Your task to perform on an android device: toggle notification dots Image 0: 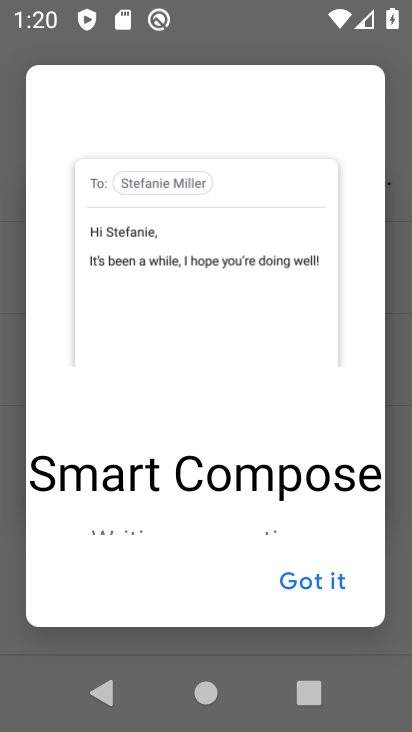
Step 0: press home button
Your task to perform on an android device: toggle notification dots Image 1: 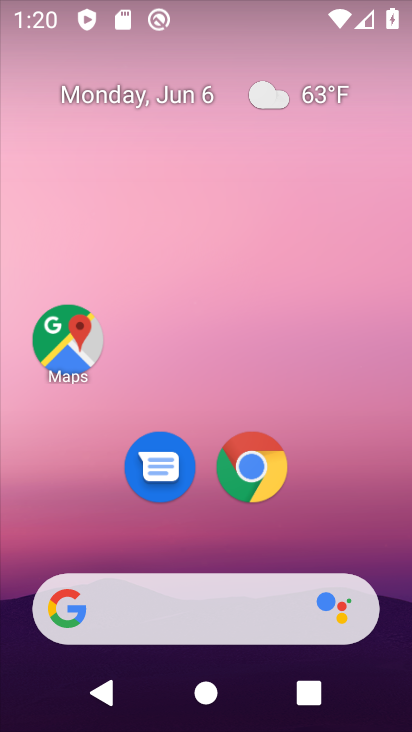
Step 1: drag from (394, 597) to (252, 73)
Your task to perform on an android device: toggle notification dots Image 2: 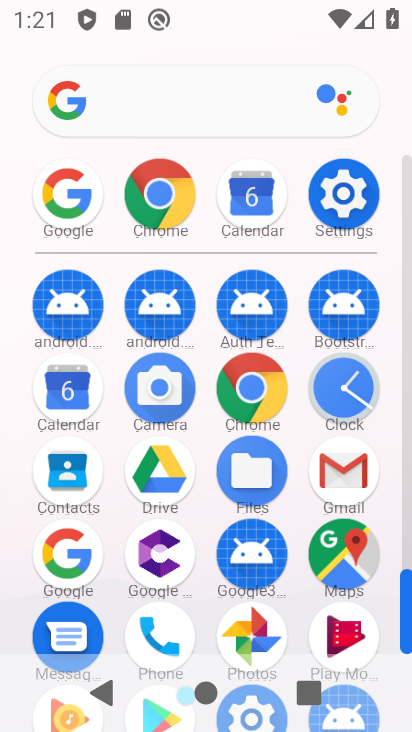
Step 2: click (334, 197)
Your task to perform on an android device: toggle notification dots Image 3: 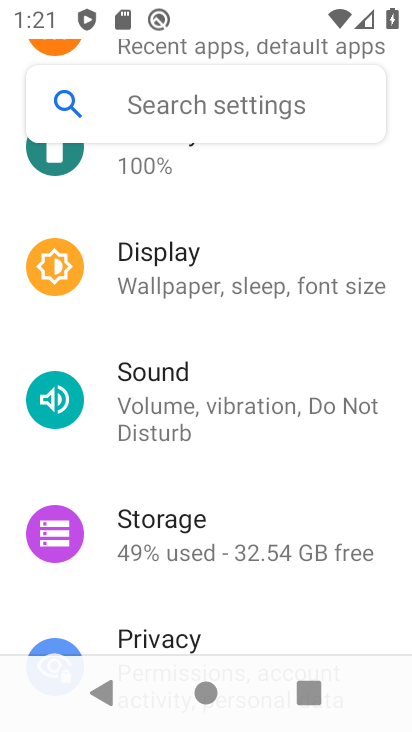
Step 3: drag from (271, 239) to (269, 640)
Your task to perform on an android device: toggle notification dots Image 4: 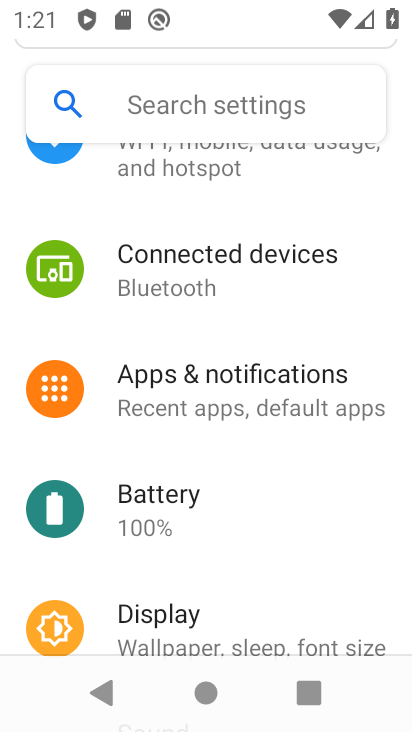
Step 4: click (267, 391)
Your task to perform on an android device: toggle notification dots Image 5: 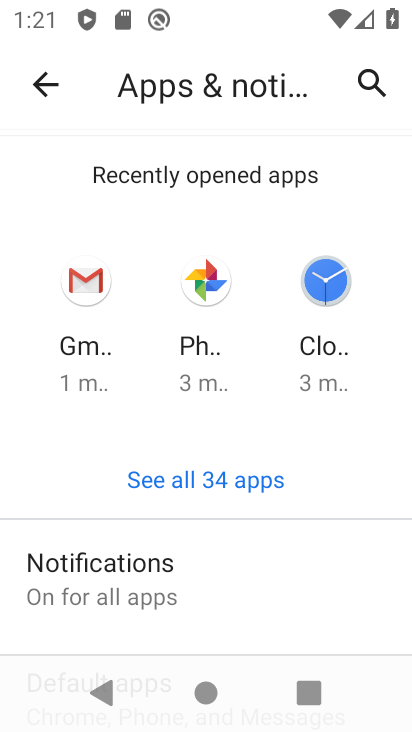
Step 5: click (189, 598)
Your task to perform on an android device: toggle notification dots Image 6: 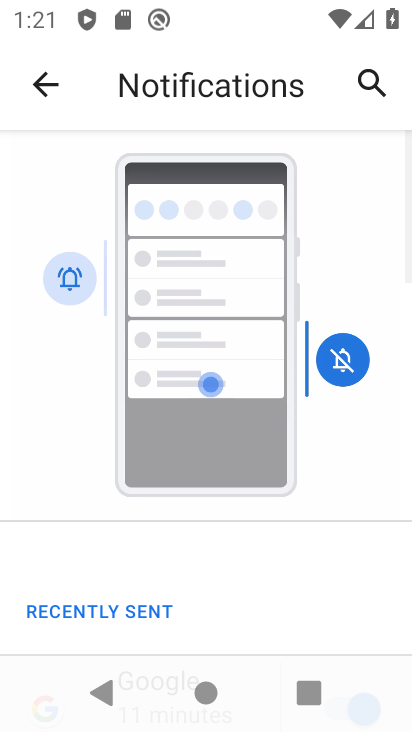
Step 6: drag from (189, 593) to (218, 8)
Your task to perform on an android device: toggle notification dots Image 7: 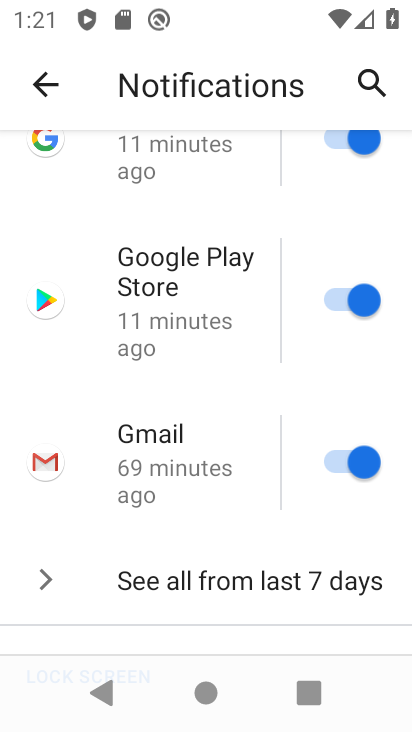
Step 7: drag from (165, 530) to (257, 6)
Your task to perform on an android device: toggle notification dots Image 8: 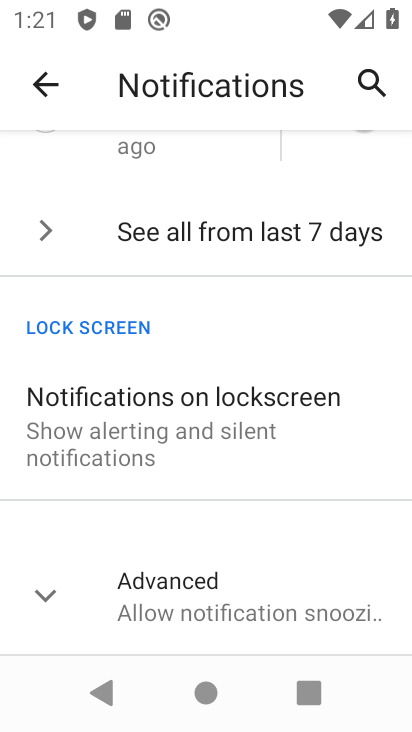
Step 8: click (155, 591)
Your task to perform on an android device: toggle notification dots Image 9: 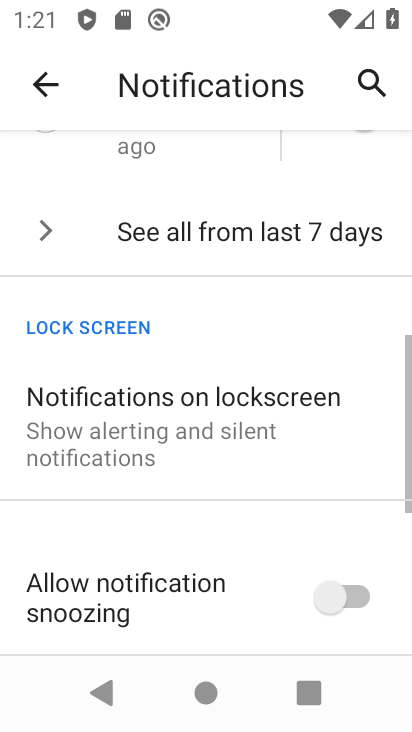
Step 9: drag from (167, 546) to (173, 509)
Your task to perform on an android device: toggle notification dots Image 10: 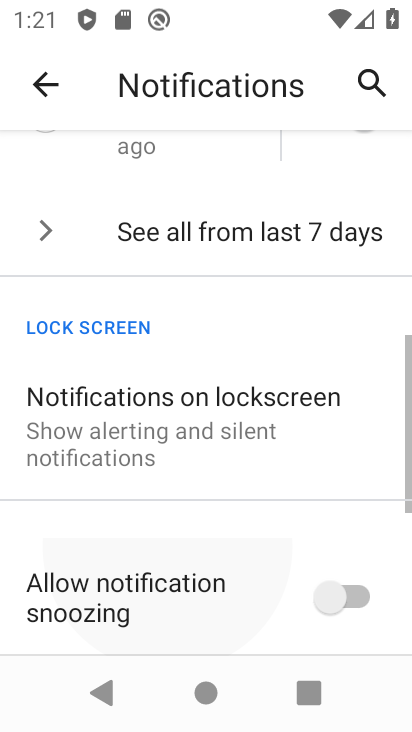
Step 10: drag from (192, 332) to (191, 48)
Your task to perform on an android device: toggle notification dots Image 11: 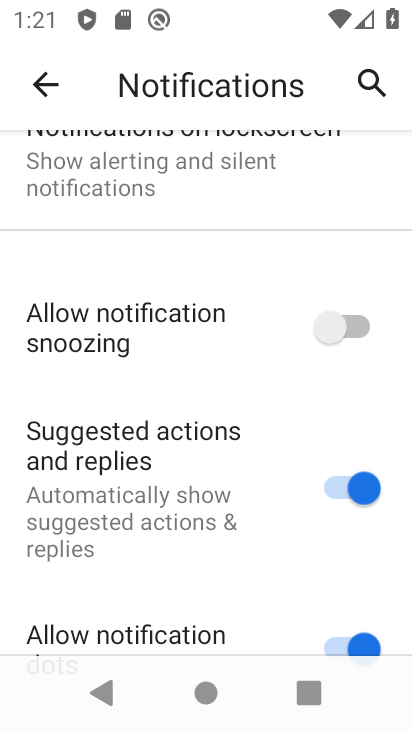
Step 11: click (165, 536)
Your task to perform on an android device: toggle notification dots Image 12: 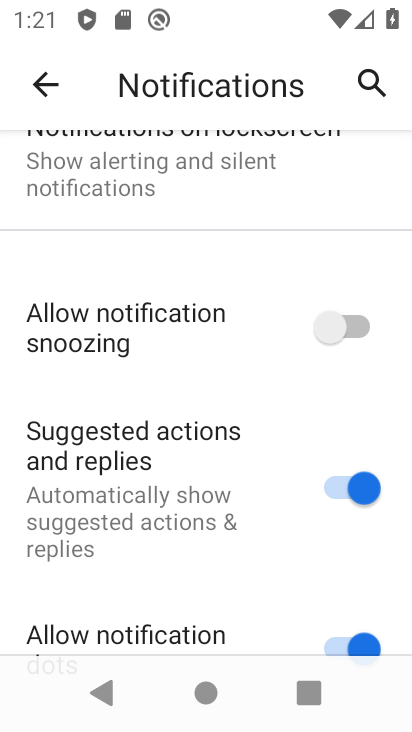
Step 12: drag from (228, 379) to (239, 150)
Your task to perform on an android device: toggle notification dots Image 13: 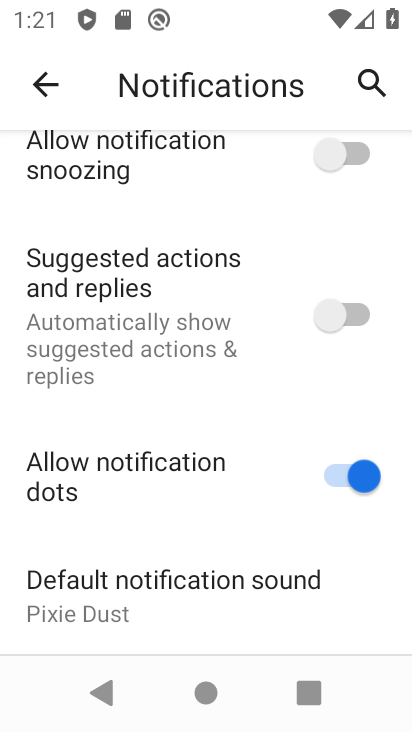
Step 13: click (239, 465)
Your task to perform on an android device: toggle notification dots Image 14: 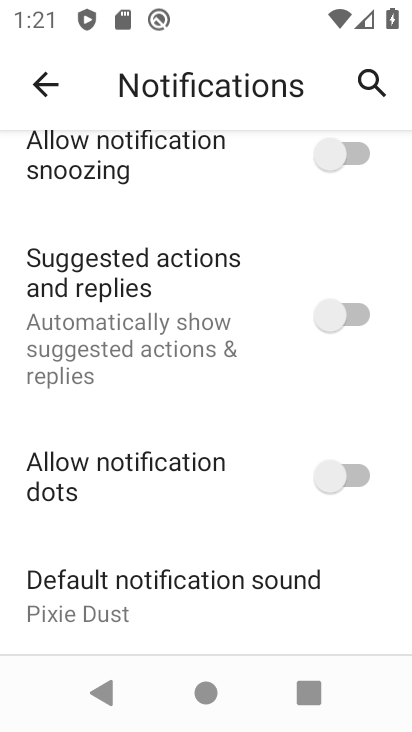
Step 14: task complete